Your task to perform on an android device: open a new tab in the chrome app Image 0: 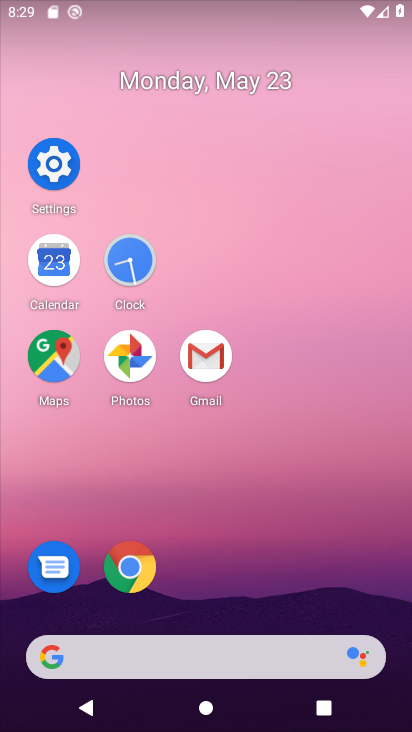
Step 0: click (140, 559)
Your task to perform on an android device: open a new tab in the chrome app Image 1: 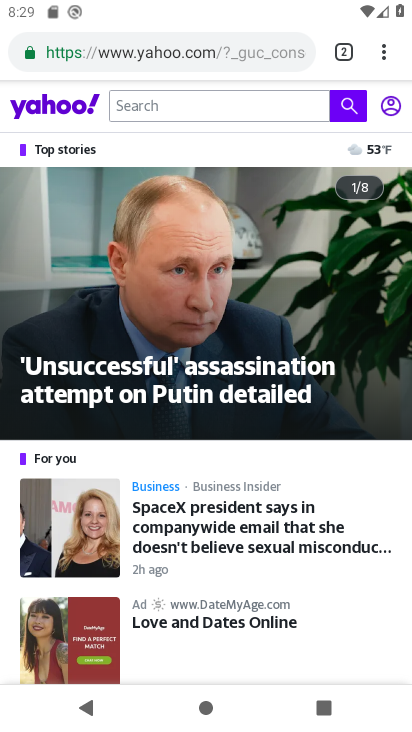
Step 1: click (345, 65)
Your task to perform on an android device: open a new tab in the chrome app Image 2: 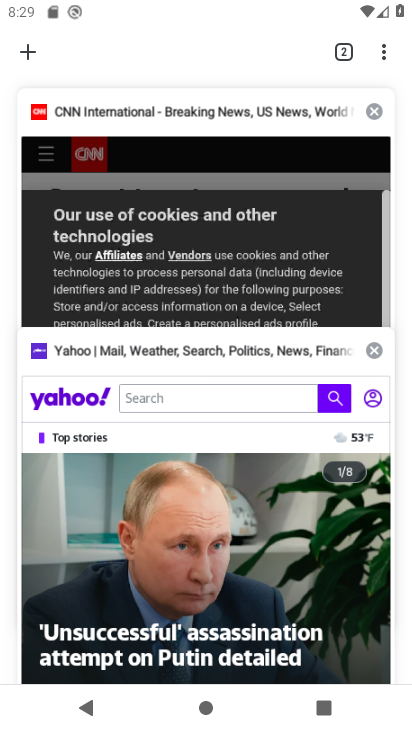
Step 2: click (31, 56)
Your task to perform on an android device: open a new tab in the chrome app Image 3: 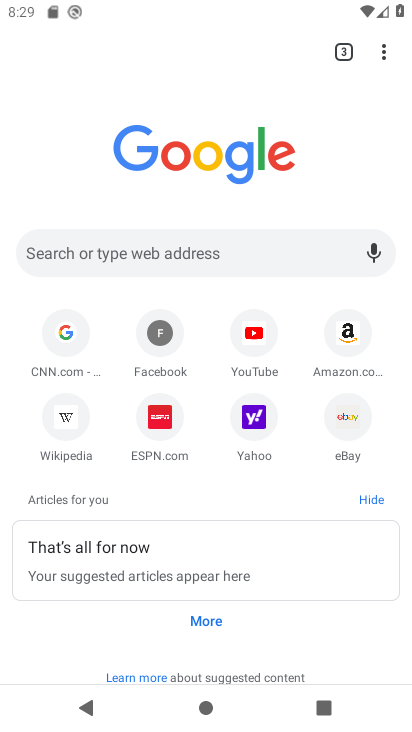
Step 3: task complete